Your task to perform on an android device: uninstall "Nova Launcher" Image 0: 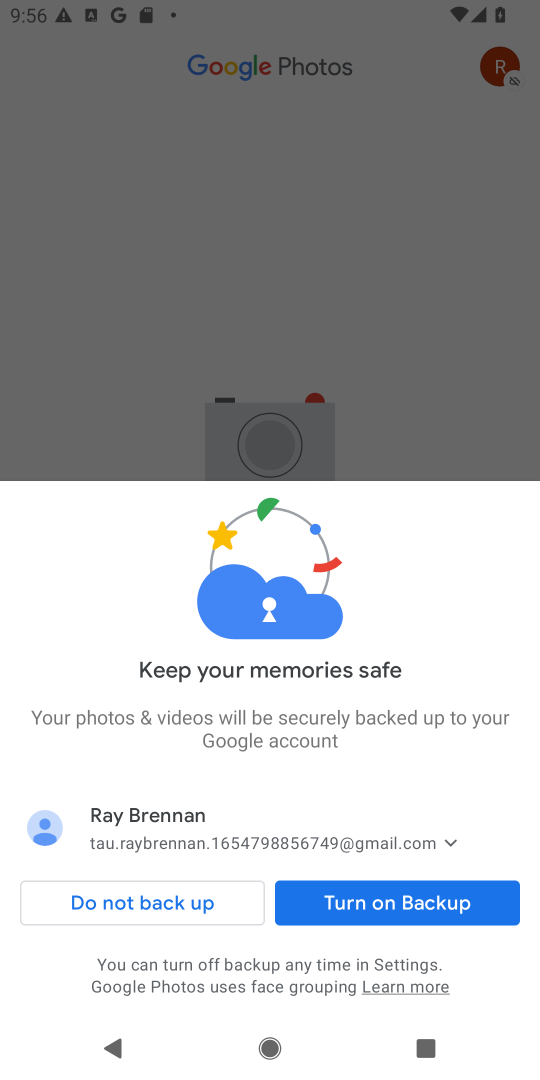
Step 0: press home button
Your task to perform on an android device: uninstall "Nova Launcher" Image 1: 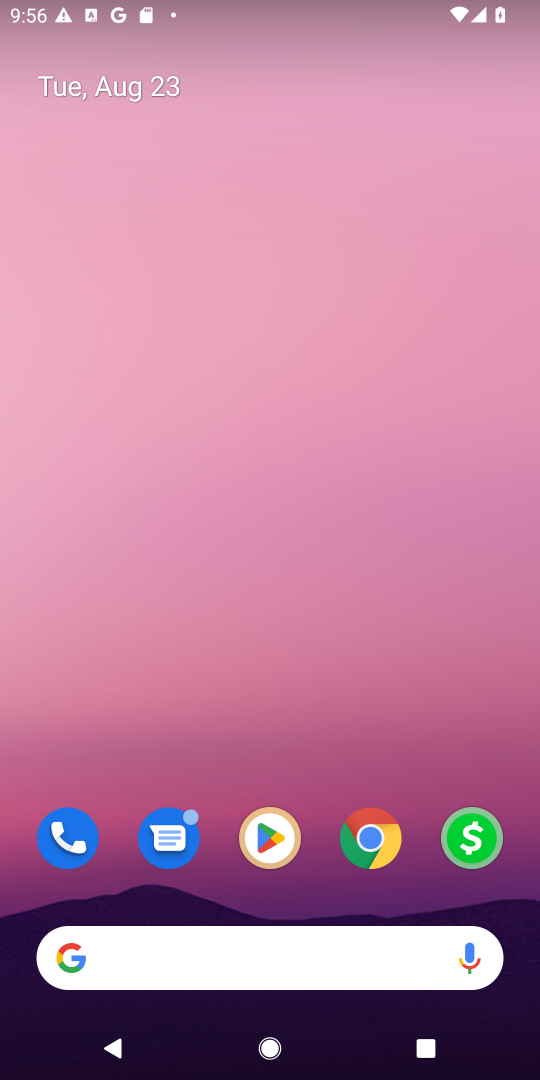
Step 1: click (278, 832)
Your task to perform on an android device: uninstall "Nova Launcher" Image 2: 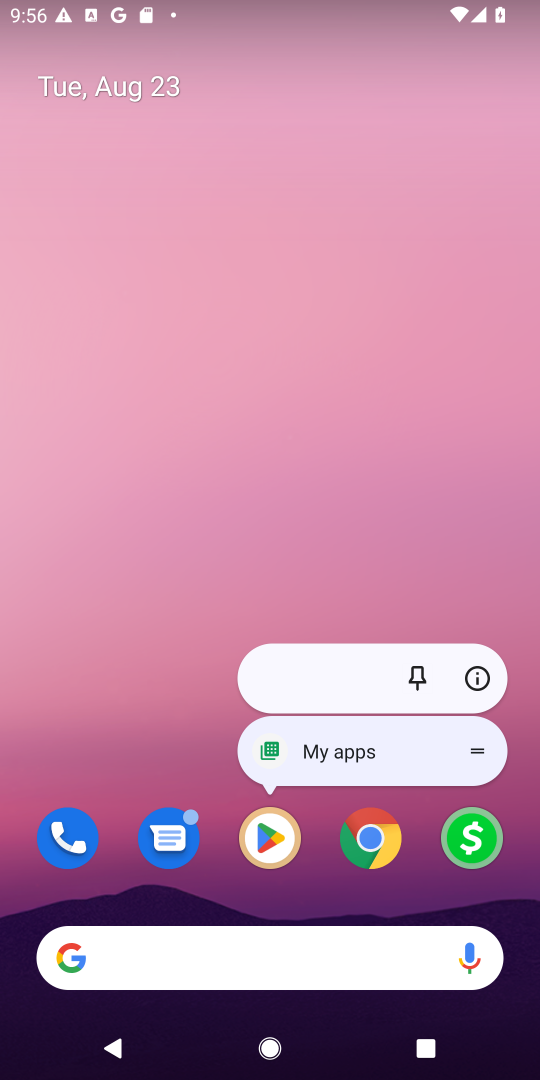
Step 2: click (286, 836)
Your task to perform on an android device: uninstall "Nova Launcher" Image 3: 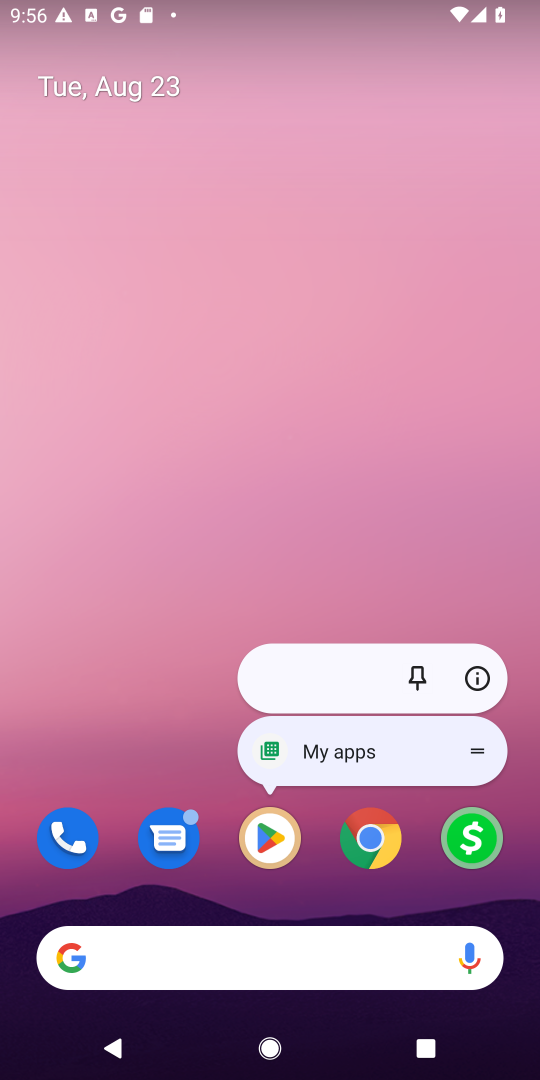
Step 3: click (288, 838)
Your task to perform on an android device: uninstall "Nova Launcher" Image 4: 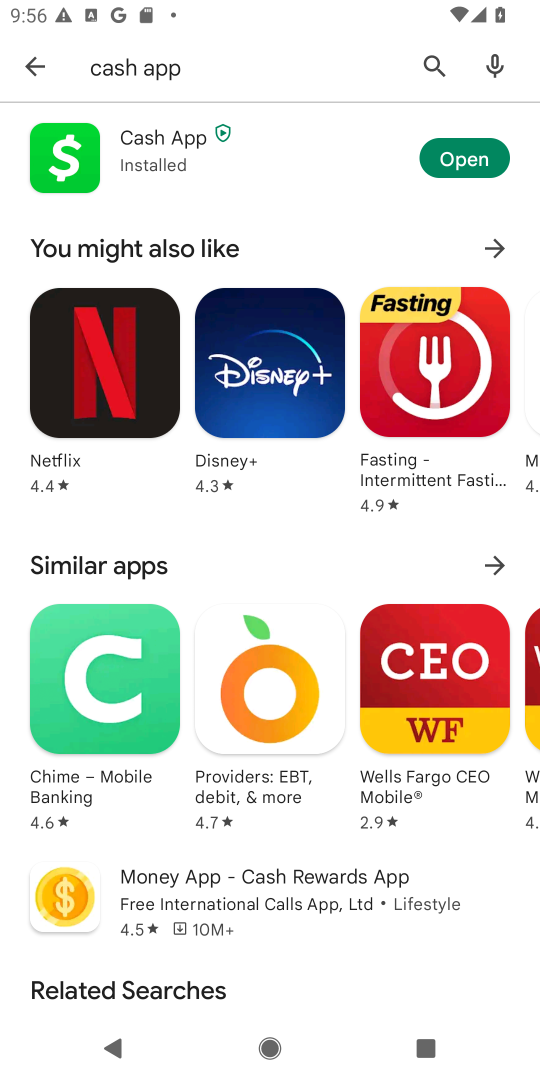
Step 4: click (430, 66)
Your task to perform on an android device: uninstall "Nova Launcher" Image 5: 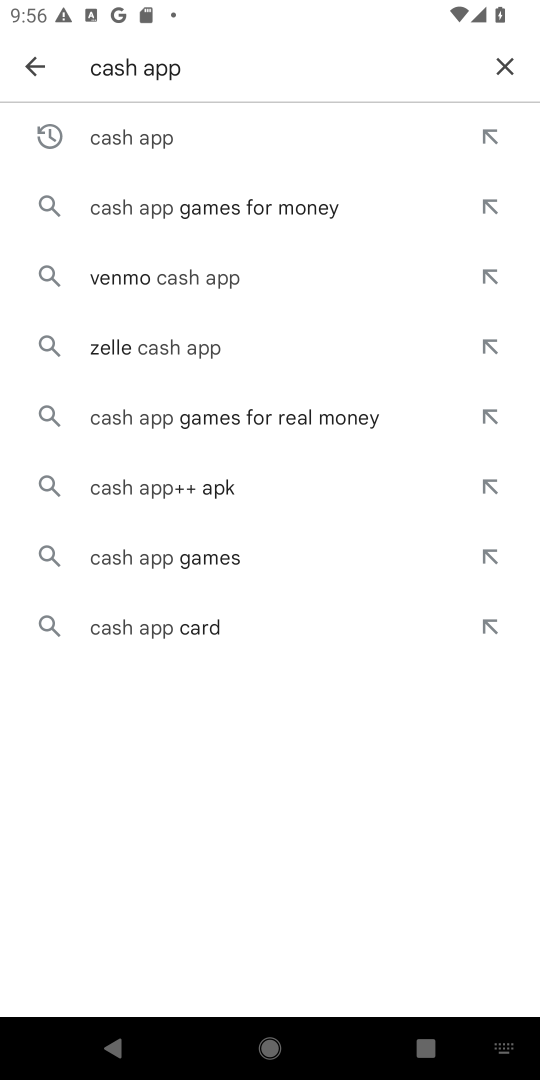
Step 5: click (505, 70)
Your task to perform on an android device: uninstall "Nova Launcher" Image 6: 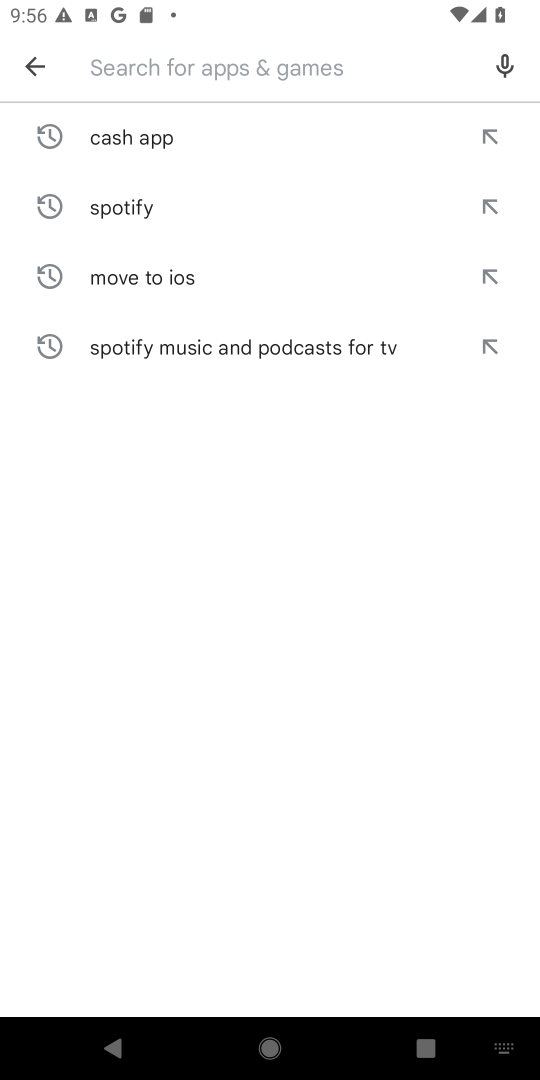
Step 6: type "Nova Launcher"
Your task to perform on an android device: uninstall "Nova Launcher" Image 7: 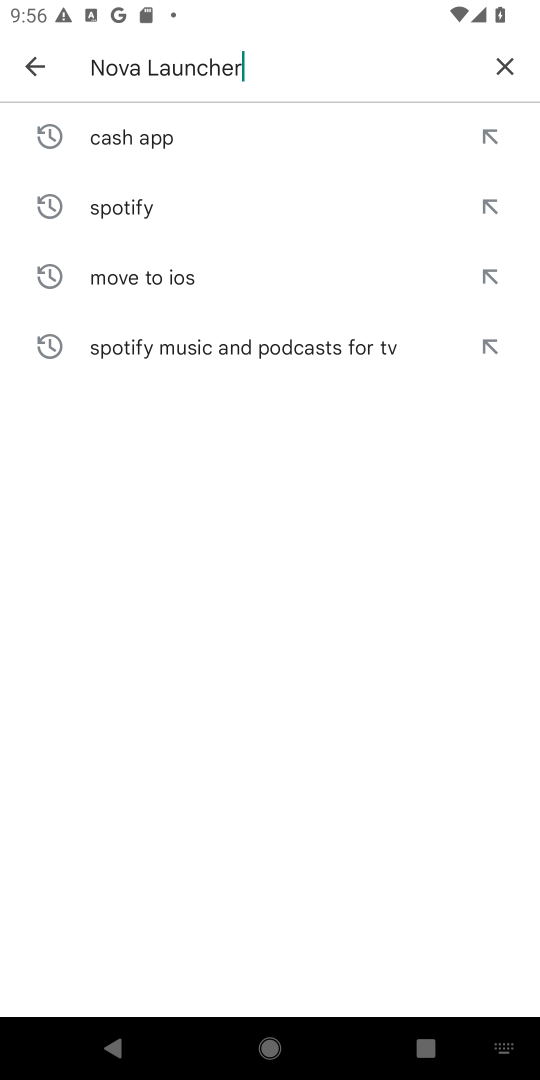
Step 7: type ""
Your task to perform on an android device: uninstall "Nova Launcher" Image 8: 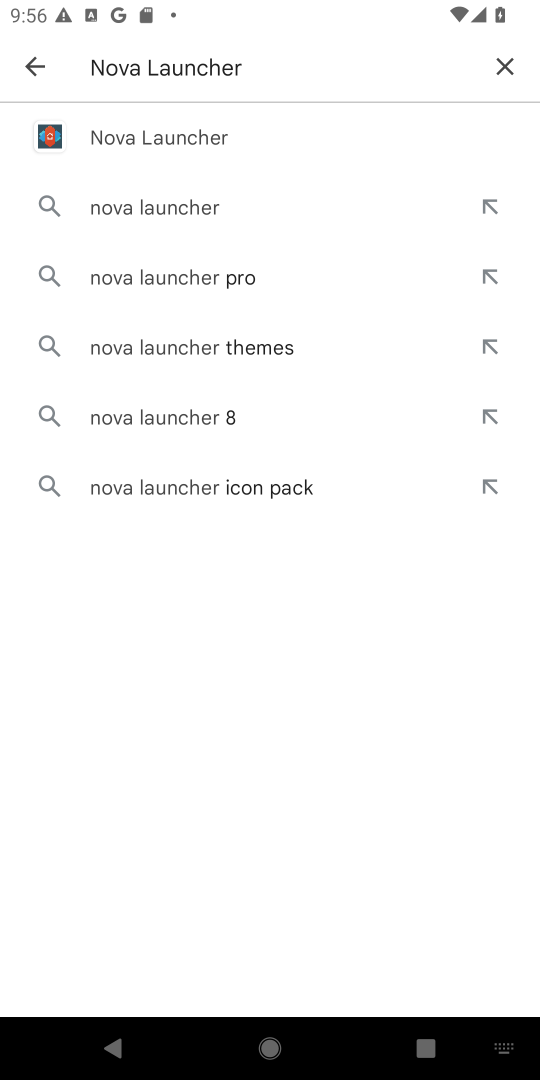
Step 8: click (200, 144)
Your task to perform on an android device: uninstall "Nova Launcher" Image 9: 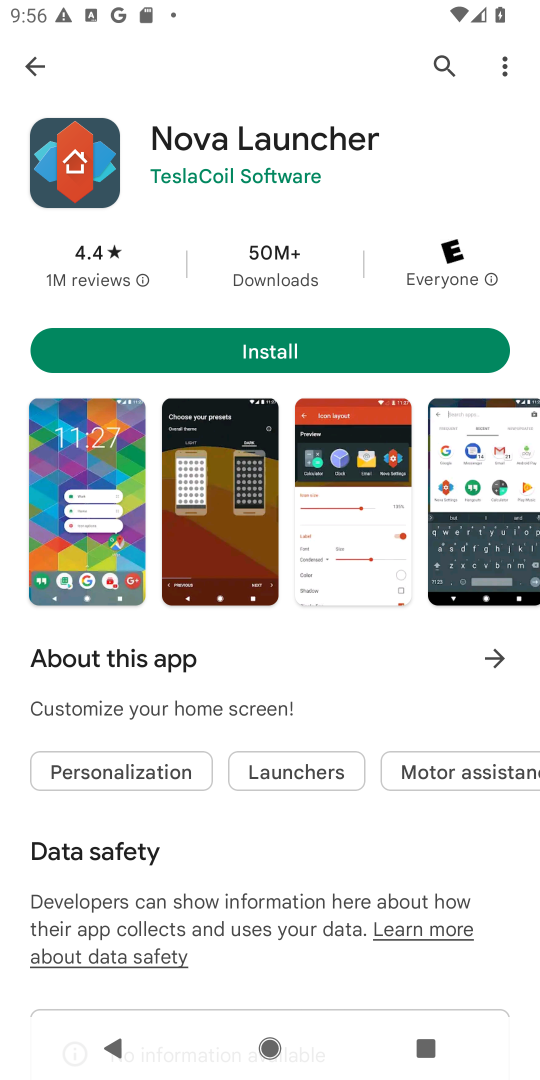
Step 9: task complete